Your task to perform on an android device: open a new tab in the chrome app Image 0: 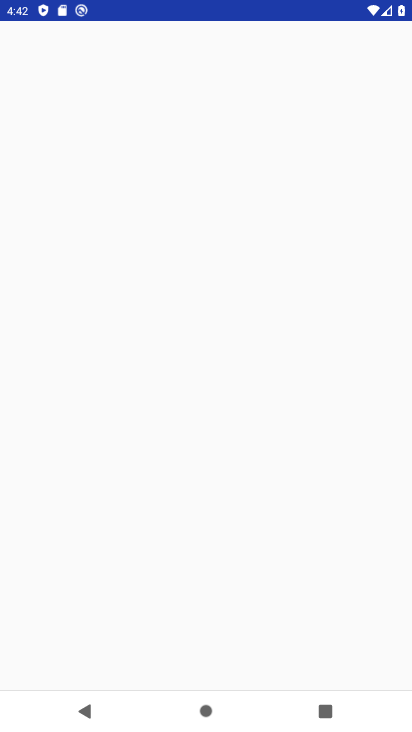
Step 0: drag from (204, 603) to (207, 280)
Your task to perform on an android device: open a new tab in the chrome app Image 1: 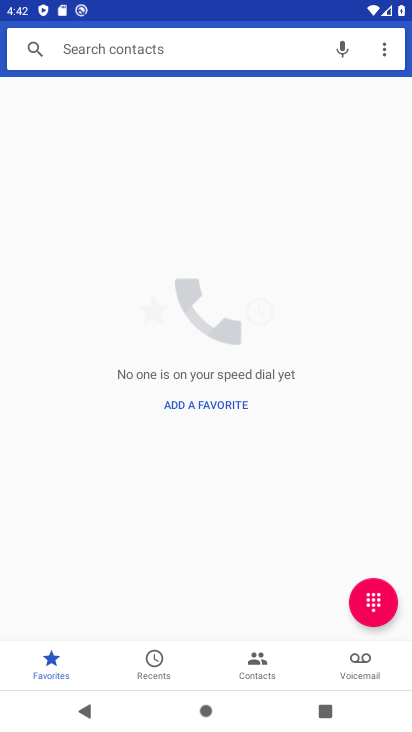
Step 1: press home button
Your task to perform on an android device: open a new tab in the chrome app Image 2: 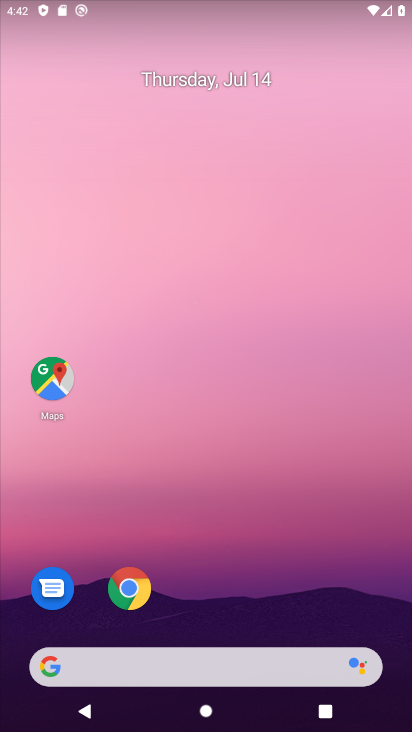
Step 2: drag from (185, 608) to (180, 246)
Your task to perform on an android device: open a new tab in the chrome app Image 3: 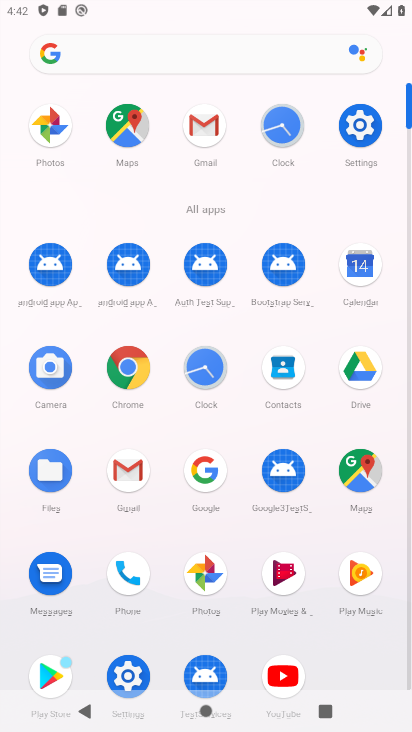
Step 3: click (133, 356)
Your task to perform on an android device: open a new tab in the chrome app Image 4: 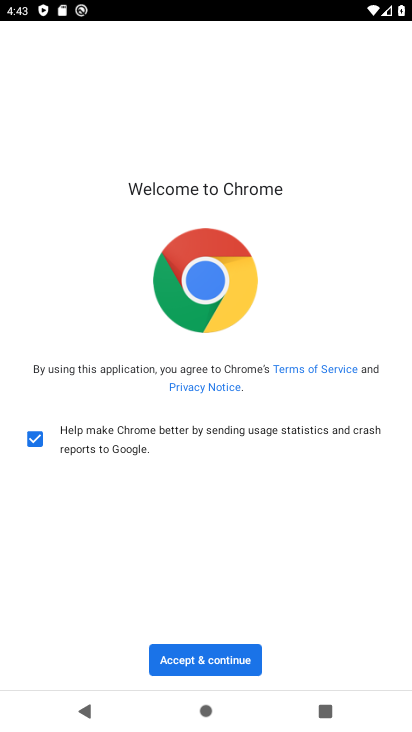
Step 4: click (197, 655)
Your task to perform on an android device: open a new tab in the chrome app Image 5: 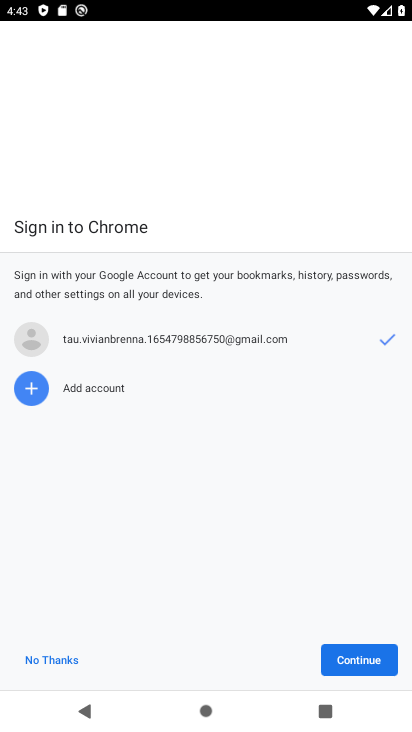
Step 5: click (343, 662)
Your task to perform on an android device: open a new tab in the chrome app Image 6: 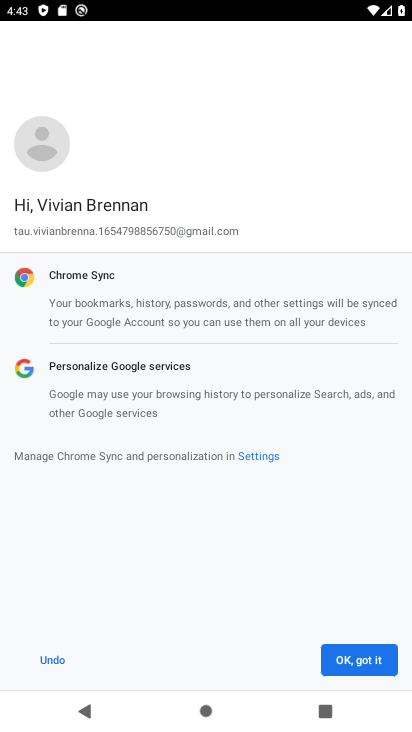
Step 6: click (342, 661)
Your task to perform on an android device: open a new tab in the chrome app Image 7: 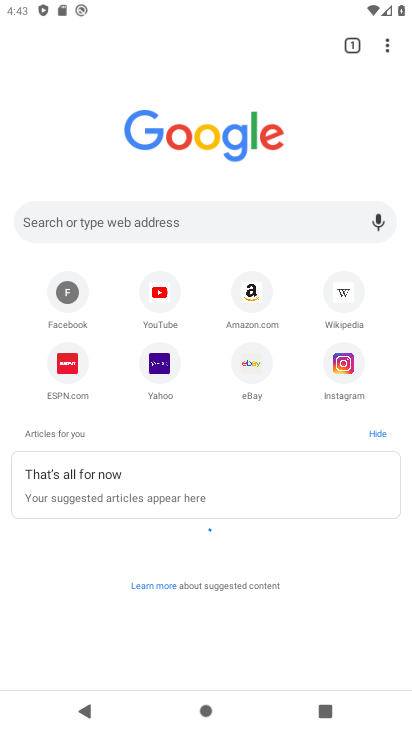
Step 7: click (386, 51)
Your task to perform on an android device: open a new tab in the chrome app Image 8: 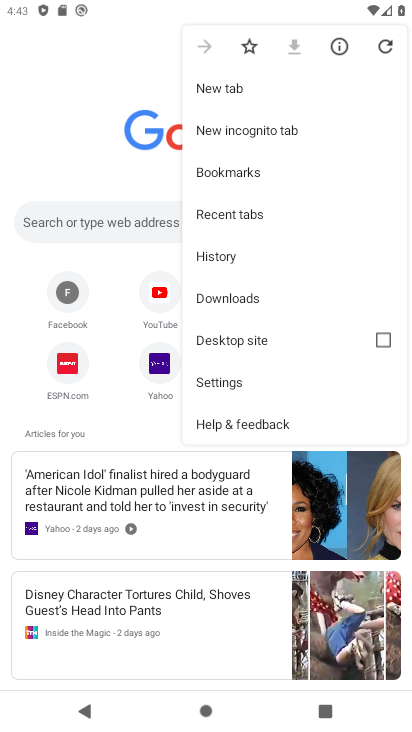
Step 8: click (223, 89)
Your task to perform on an android device: open a new tab in the chrome app Image 9: 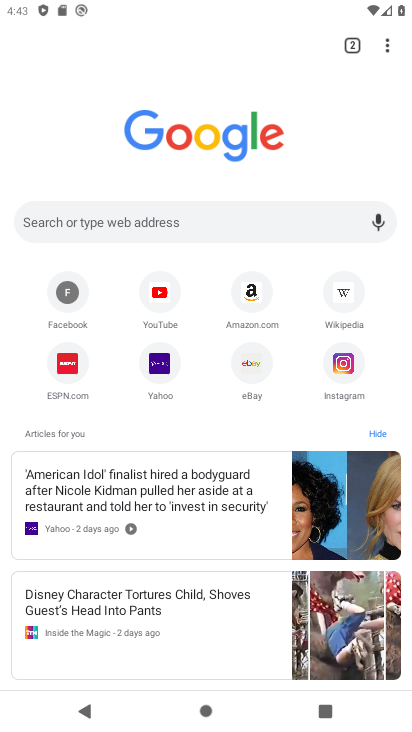
Step 9: task complete